Your task to perform on an android device: open device folders in google photos Image 0: 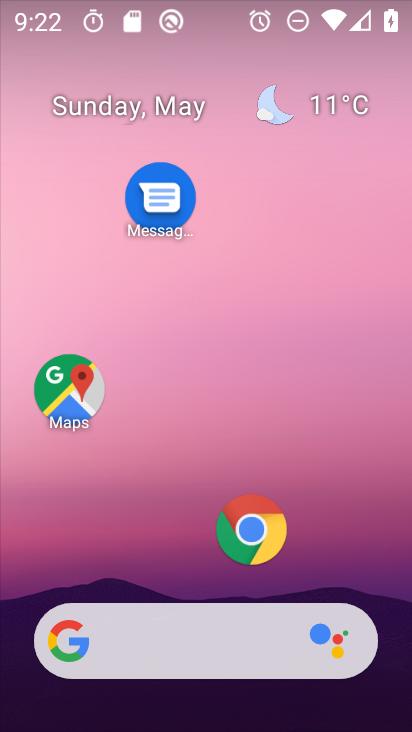
Step 0: drag from (198, 545) to (236, 71)
Your task to perform on an android device: open device folders in google photos Image 1: 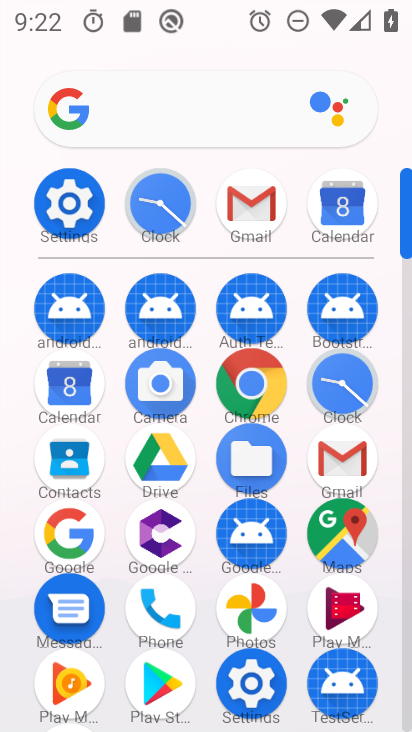
Step 1: click (253, 598)
Your task to perform on an android device: open device folders in google photos Image 2: 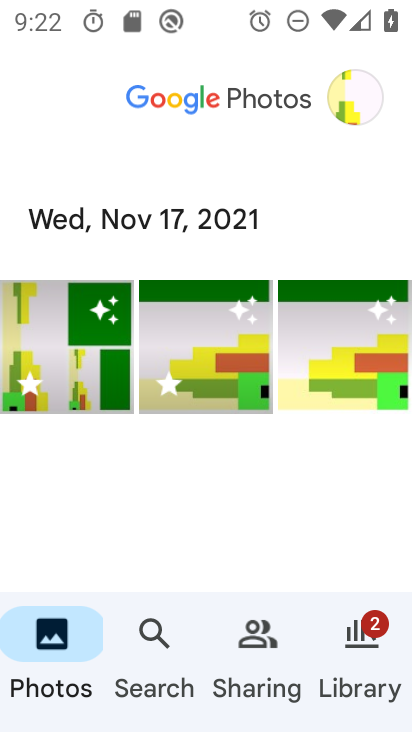
Step 2: click (346, 91)
Your task to perform on an android device: open device folders in google photos Image 3: 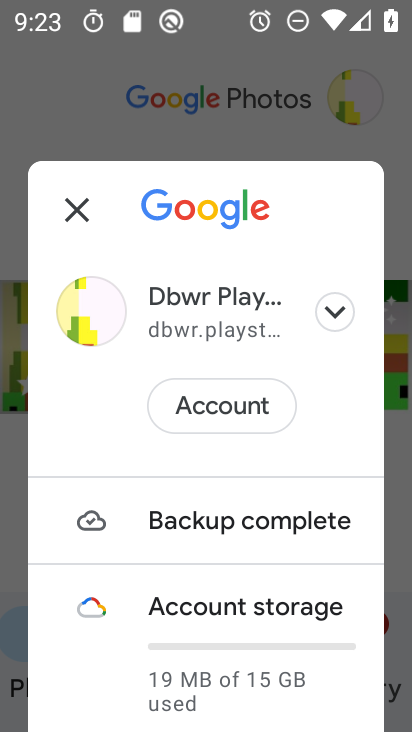
Step 3: click (190, 99)
Your task to perform on an android device: open device folders in google photos Image 4: 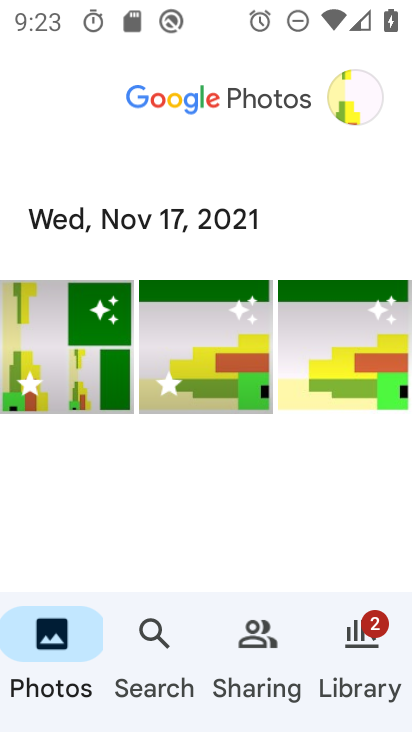
Step 4: click (154, 634)
Your task to perform on an android device: open device folders in google photos Image 5: 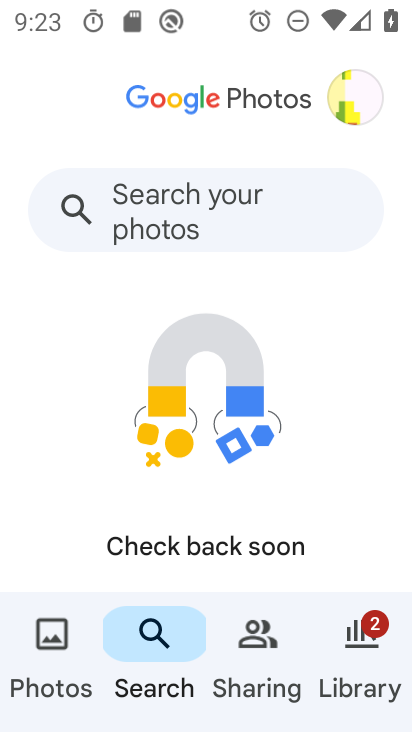
Step 5: click (141, 199)
Your task to perform on an android device: open device folders in google photos Image 6: 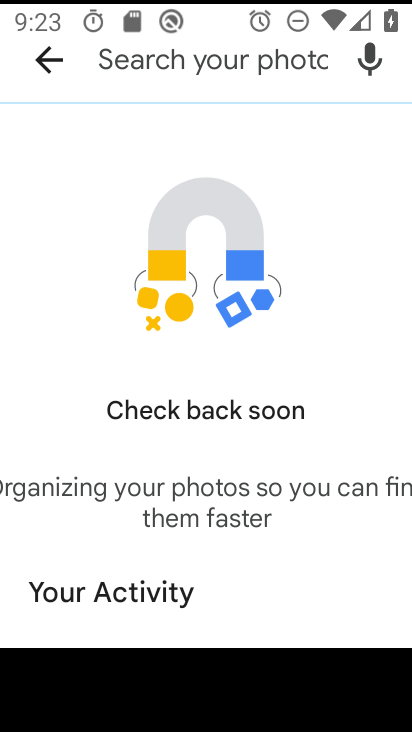
Step 6: type "device"
Your task to perform on an android device: open device folders in google photos Image 7: 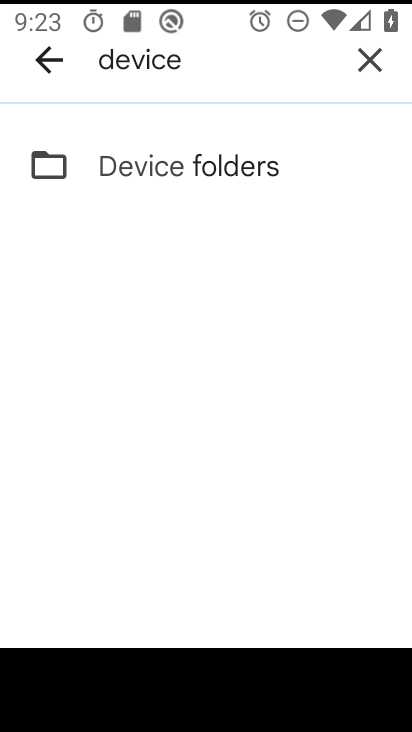
Step 7: click (201, 158)
Your task to perform on an android device: open device folders in google photos Image 8: 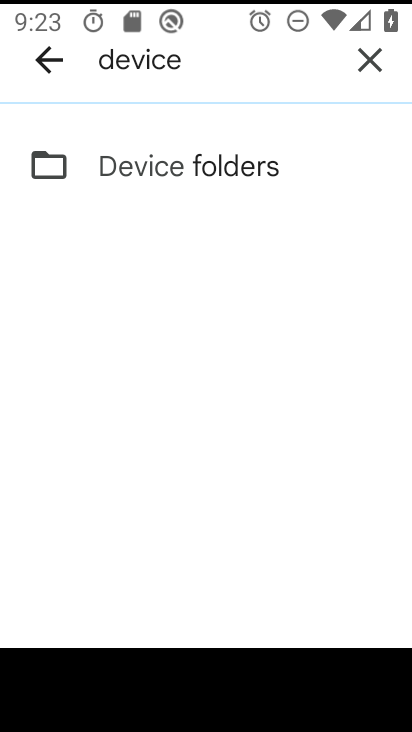
Step 8: click (140, 149)
Your task to perform on an android device: open device folders in google photos Image 9: 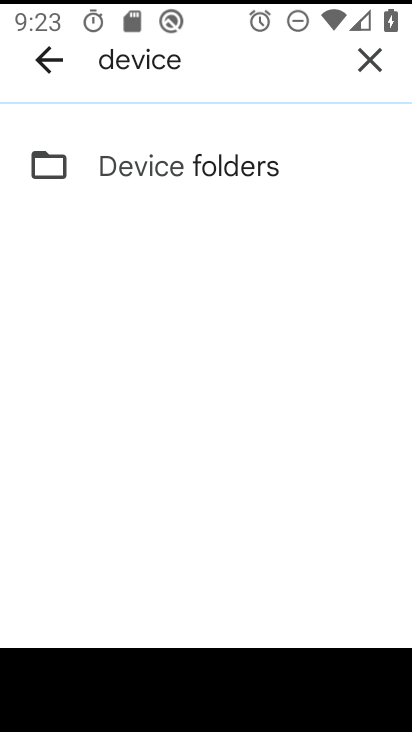
Step 9: click (86, 161)
Your task to perform on an android device: open device folders in google photos Image 10: 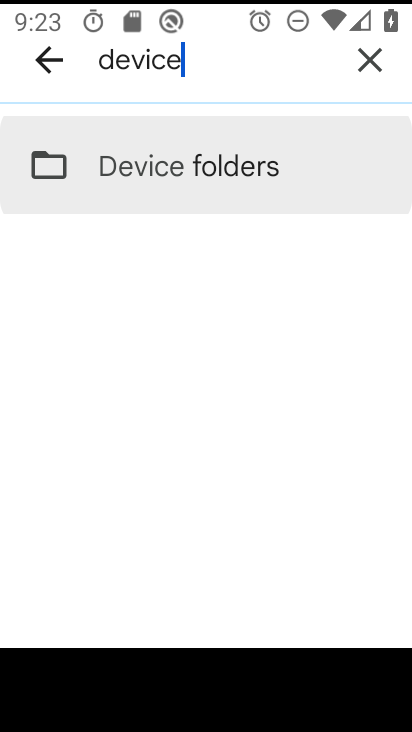
Step 10: click (86, 161)
Your task to perform on an android device: open device folders in google photos Image 11: 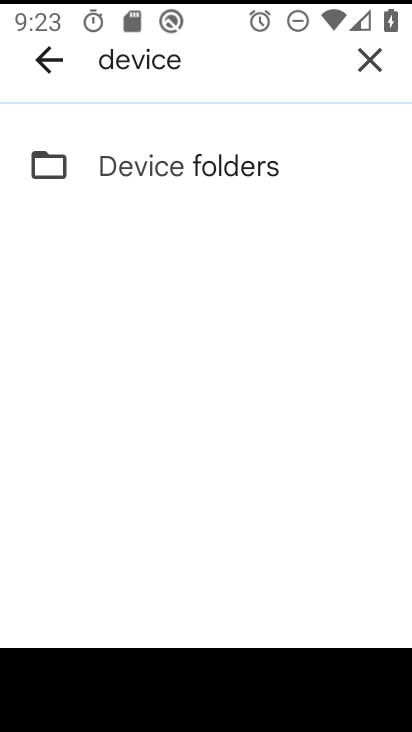
Step 11: task complete